Your task to perform on an android device: Go to location settings Image 0: 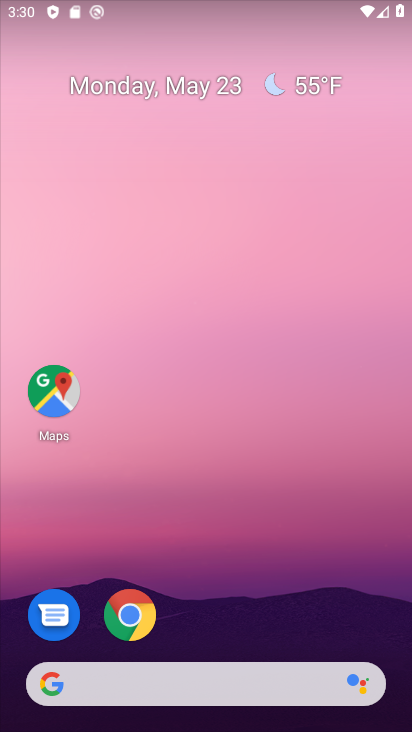
Step 0: drag from (343, 629) to (345, 266)
Your task to perform on an android device: Go to location settings Image 1: 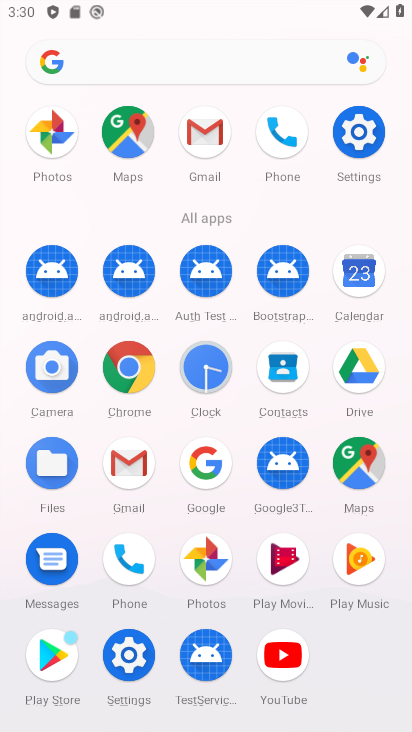
Step 1: click (350, 147)
Your task to perform on an android device: Go to location settings Image 2: 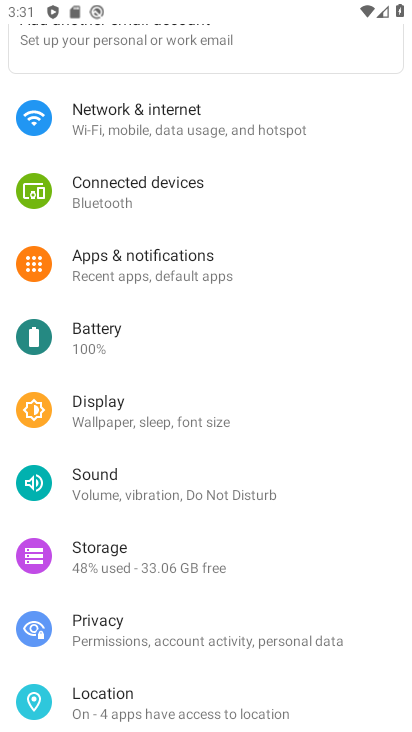
Step 2: drag from (345, 264) to (333, 468)
Your task to perform on an android device: Go to location settings Image 3: 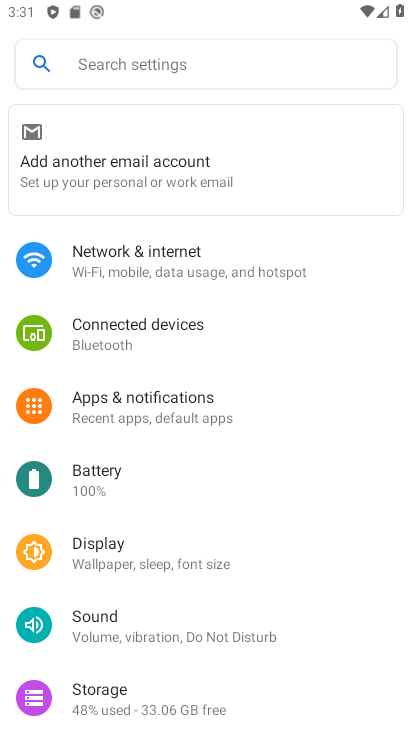
Step 3: drag from (346, 242) to (340, 459)
Your task to perform on an android device: Go to location settings Image 4: 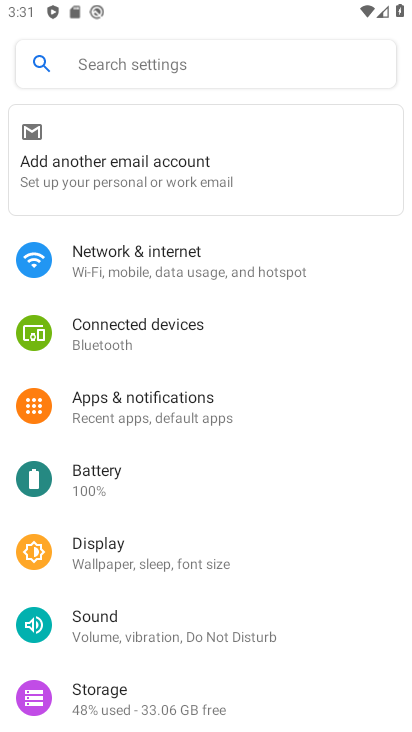
Step 4: drag from (343, 555) to (350, 356)
Your task to perform on an android device: Go to location settings Image 5: 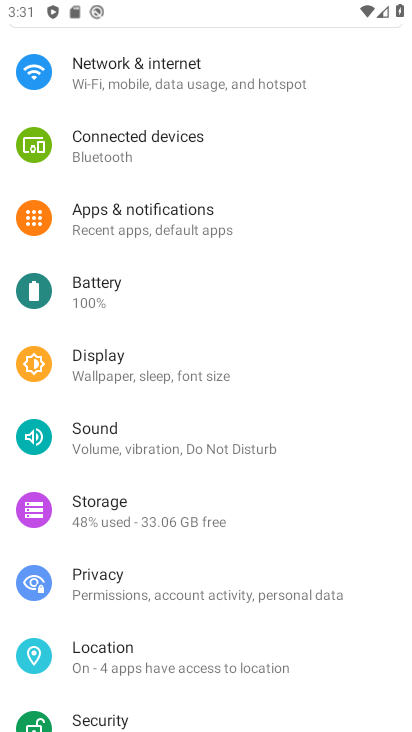
Step 5: drag from (354, 636) to (354, 441)
Your task to perform on an android device: Go to location settings Image 6: 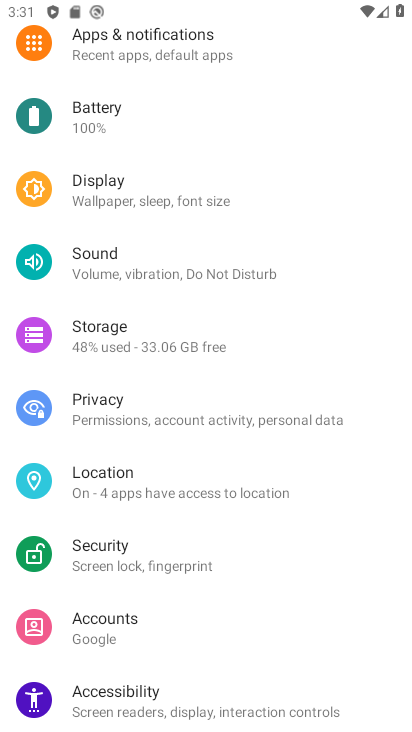
Step 6: drag from (366, 635) to (360, 429)
Your task to perform on an android device: Go to location settings Image 7: 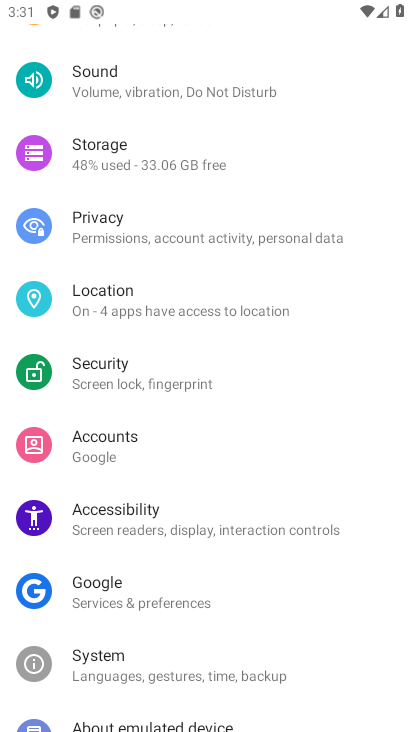
Step 7: click (216, 284)
Your task to perform on an android device: Go to location settings Image 8: 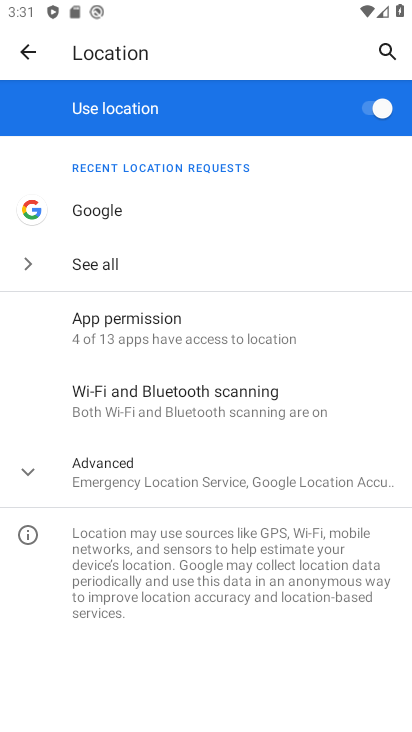
Step 8: task complete